Your task to perform on an android device: Check the weather Image 0: 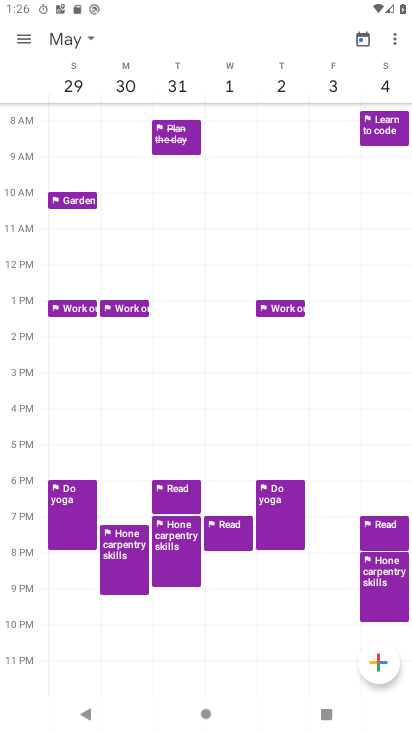
Step 0: press home button
Your task to perform on an android device: Check the weather Image 1: 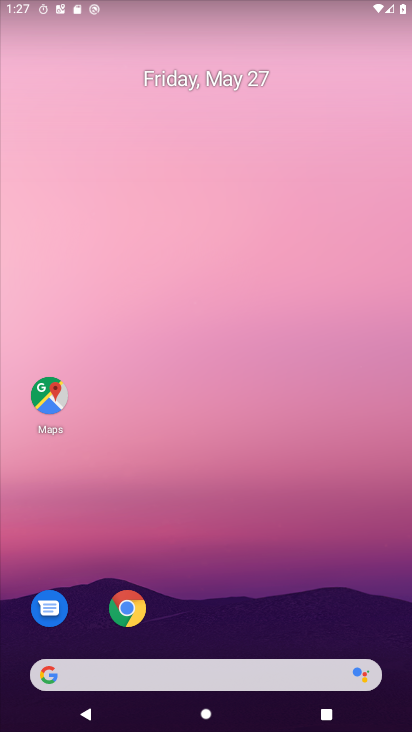
Step 1: drag from (389, 714) to (338, 238)
Your task to perform on an android device: Check the weather Image 2: 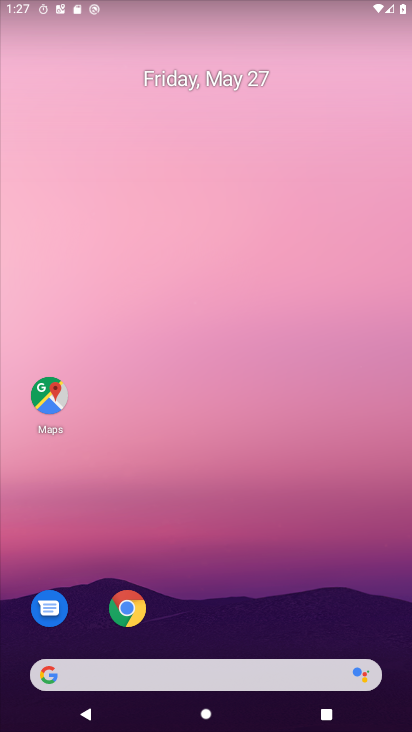
Step 2: drag from (1, 264) to (376, 296)
Your task to perform on an android device: Check the weather Image 3: 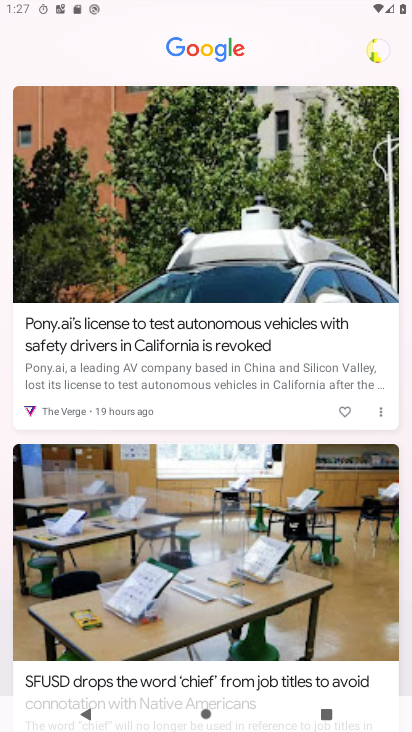
Step 3: drag from (253, 131) to (270, 690)
Your task to perform on an android device: Check the weather Image 4: 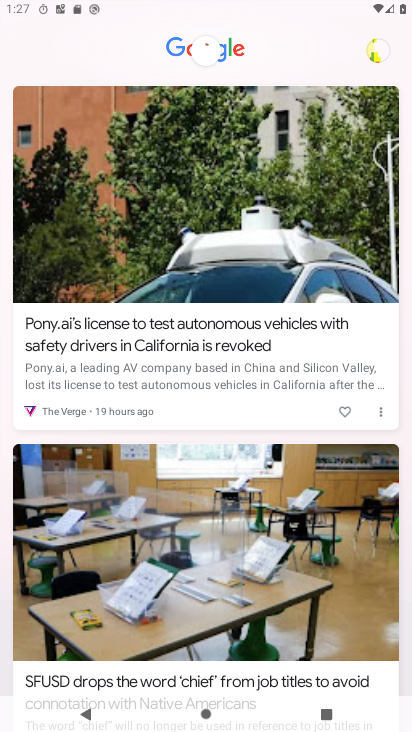
Step 4: drag from (270, 213) to (291, 569)
Your task to perform on an android device: Check the weather Image 5: 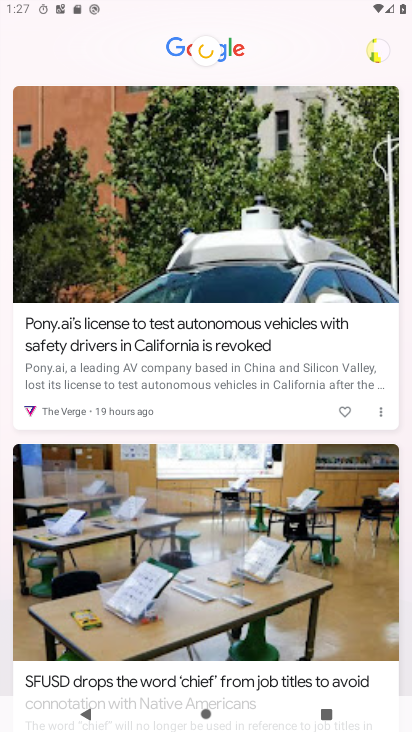
Step 5: drag from (255, 171) to (268, 589)
Your task to perform on an android device: Check the weather Image 6: 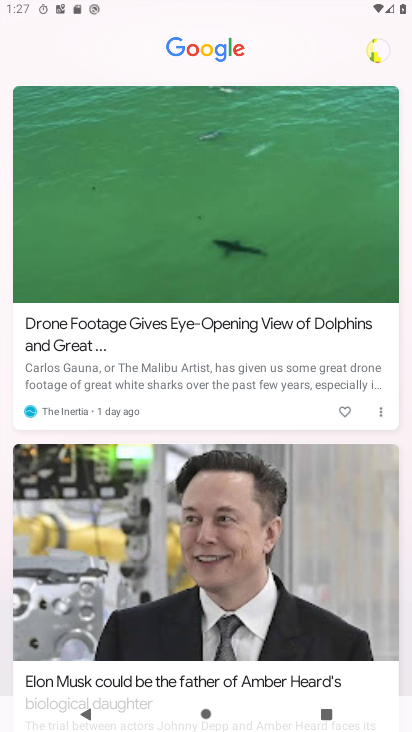
Step 6: drag from (254, 258) to (292, 551)
Your task to perform on an android device: Check the weather Image 7: 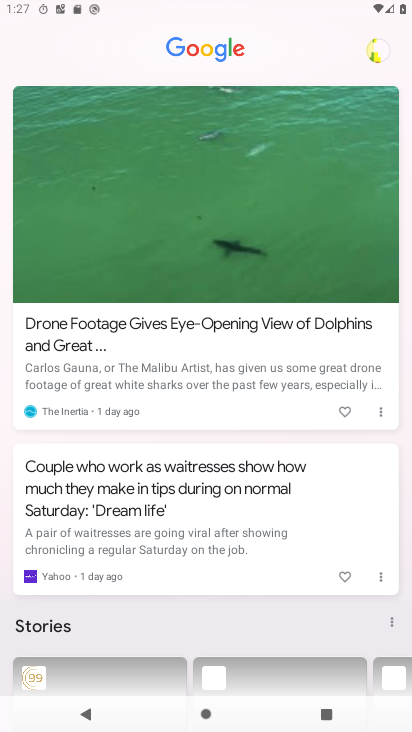
Step 7: drag from (296, 235) to (300, 577)
Your task to perform on an android device: Check the weather Image 8: 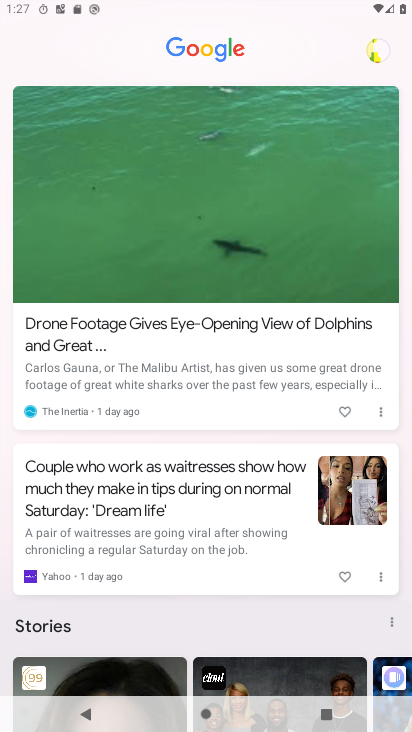
Step 8: drag from (263, 300) to (303, 560)
Your task to perform on an android device: Check the weather Image 9: 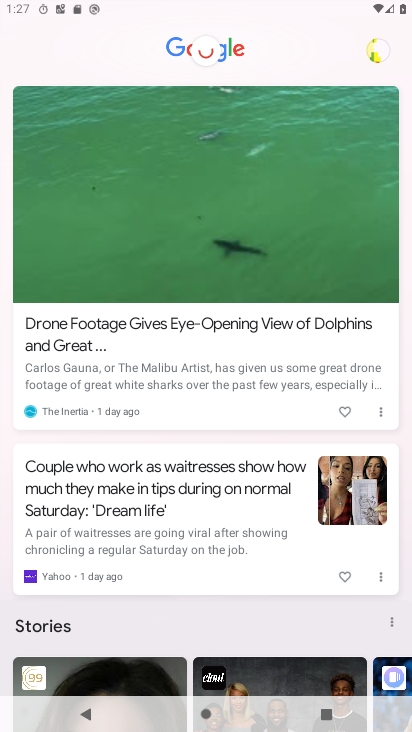
Step 9: drag from (254, 238) to (269, 557)
Your task to perform on an android device: Check the weather Image 10: 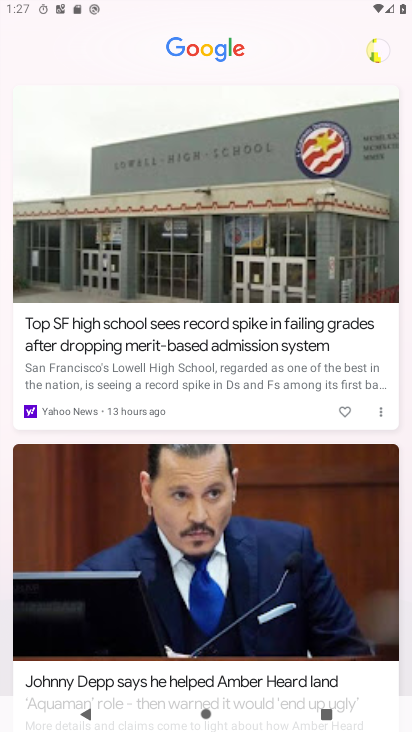
Step 10: click (154, 579)
Your task to perform on an android device: Check the weather Image 11: 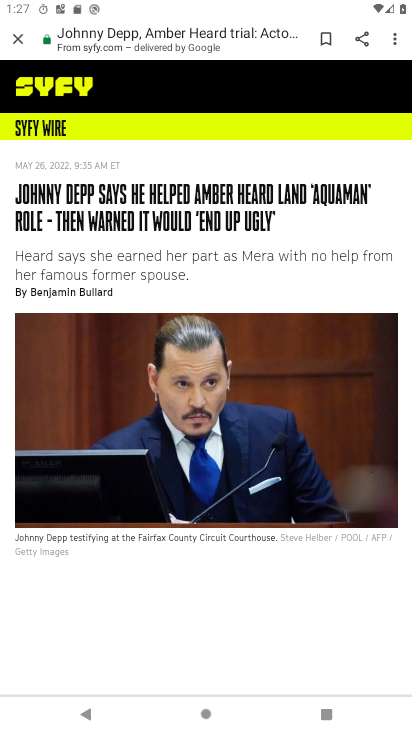
Step 11: task complete